Your task to perform on an android device: toggle sleep mode Image 0: 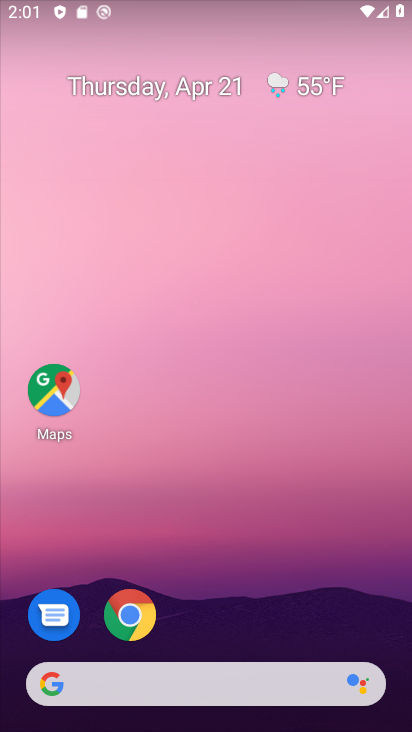
Step 0: drag from (196, 630) to (295, 77)
Your task to perform on an android device: toggle sleep mode Image 1: 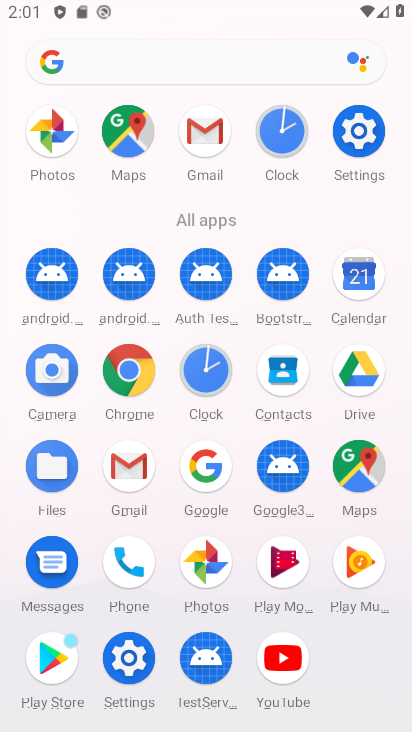
Step 1: click (120, 660)
Your task to perform on an android device: toggle sleep mode Image 2: 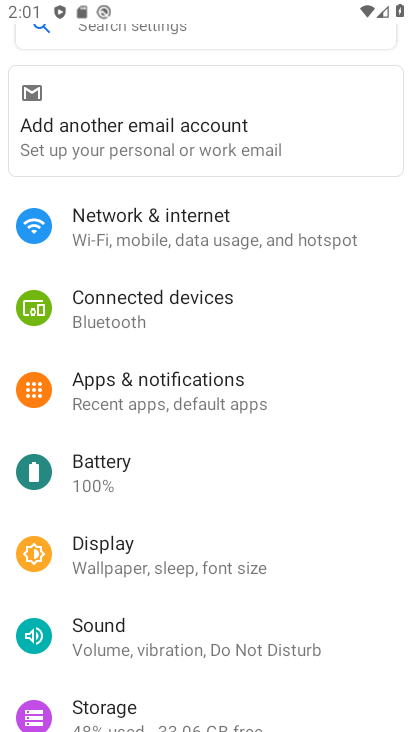
Step 2: drag from (187, 91) to (192, 353)
Your task to perform on an android device: toggle sleep mode Image 3: 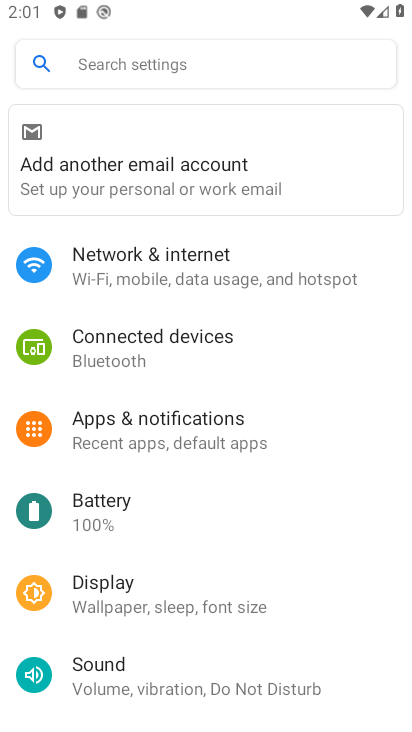
Step 3: click (173, 65)
Your task to perform on an android device: toggle sleep mode Image 4: 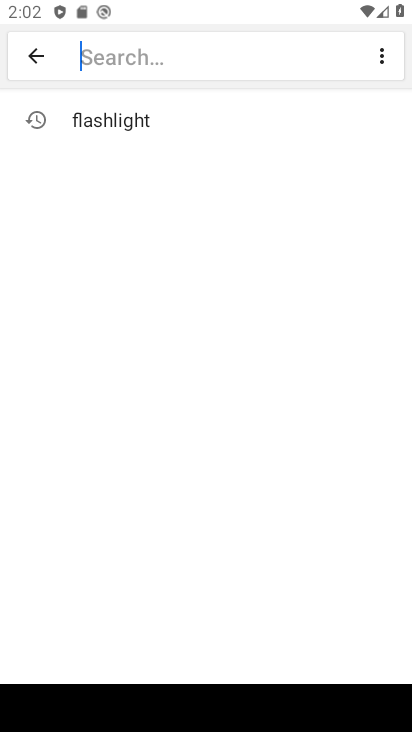
Step 4: type "sleep mode"
Your task to perform on an android device: toggle sleep mode Image 5: 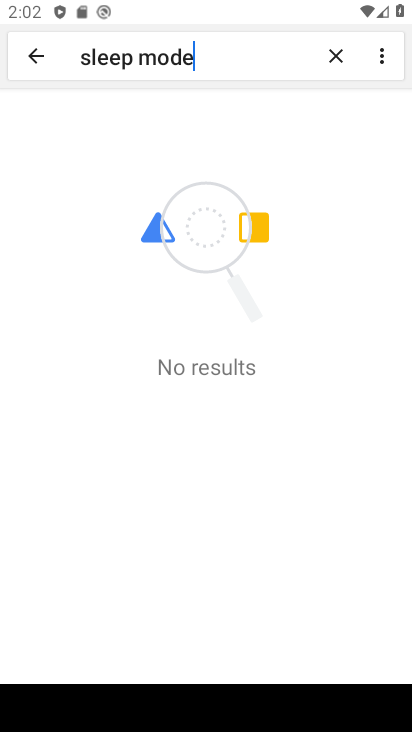
Step 5: task complete